Your task to perform on an android device: delete browsing data in the chrome app Image 0: 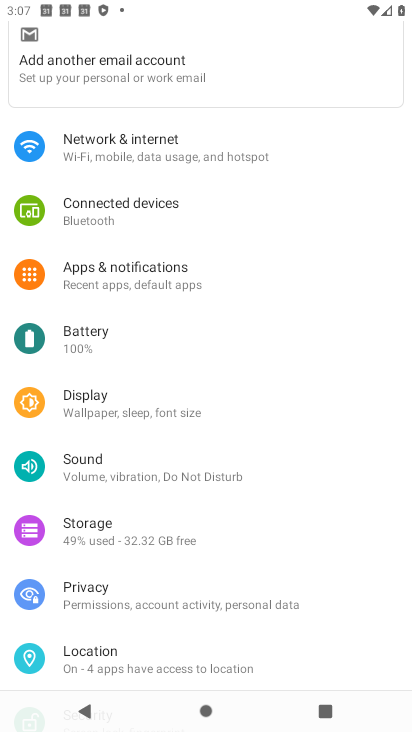
Step 0: press home button
Your task to perform on an android device: delete browsing data in the chrome app Image 1: 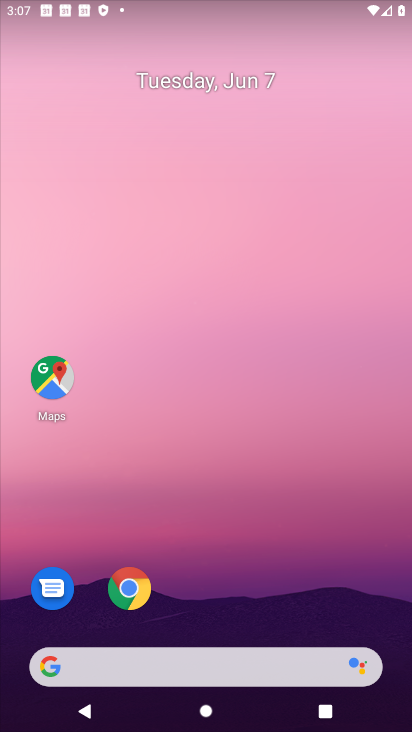
Step 1: click (147, 571)
Your task to perform on an android device: delete browsing data in the chrome app Image 2: 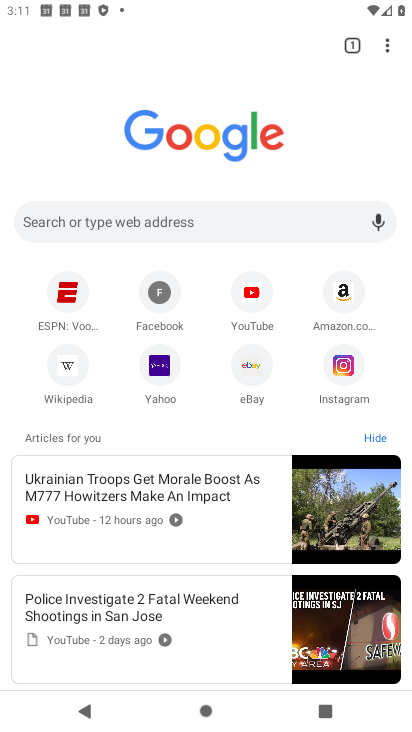
Step 2: task complete